Your task to perform on an android device: change timer sound Image 0: 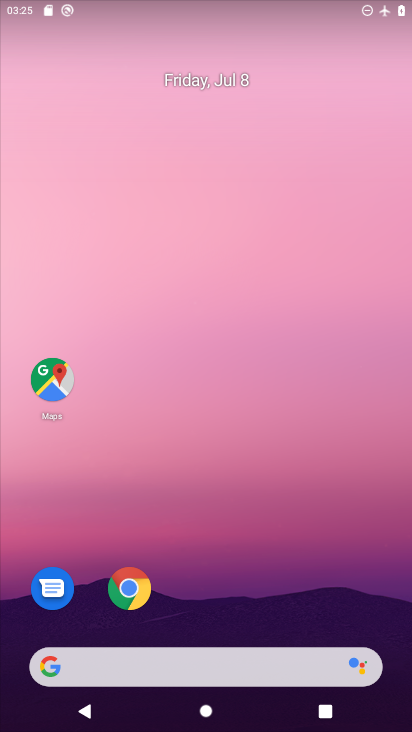
Step 0: drag from (217, 594) to (209, 75)
Your task to perform on an android device: change timer sound Image 1: 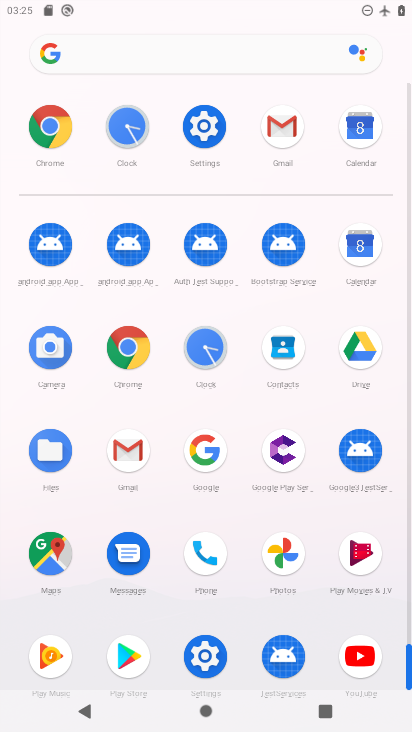
Step 1: click (200, 346)
Your task to perform on an android device: change timer sound Image 2: 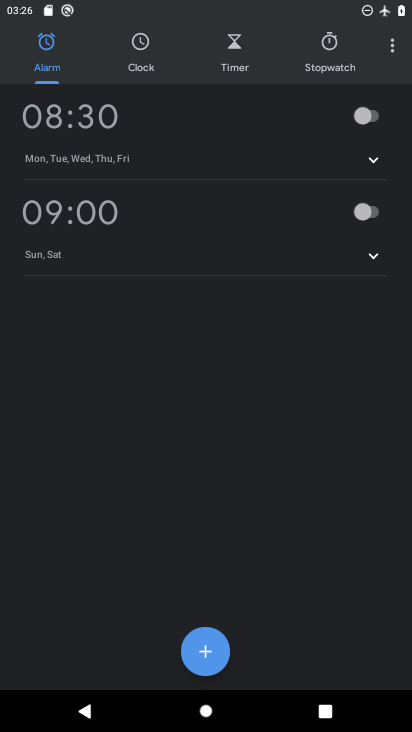
Step 2: click (227, 55)
Your task to perform on an android device: change timer sound Image 3: 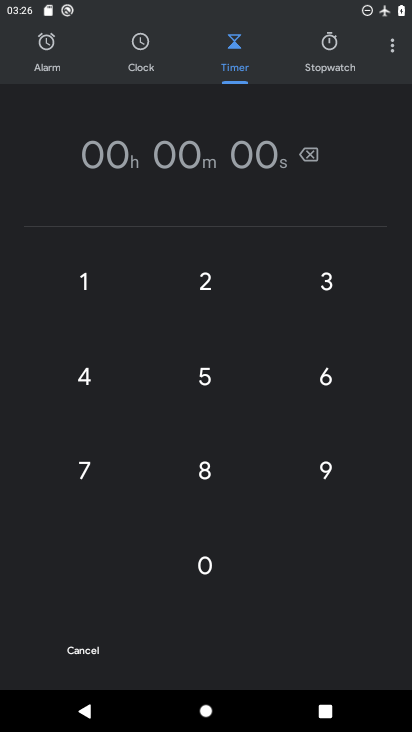
Step 3: click (201, 289)
Your task to perform on an android device: change timer sound Image 4: 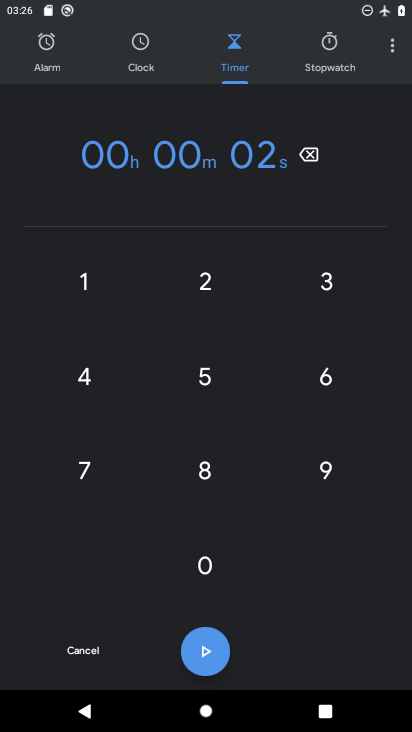
Step 4: click (201, 559)
Your task to perform on an android device: change timer sound Image 5: 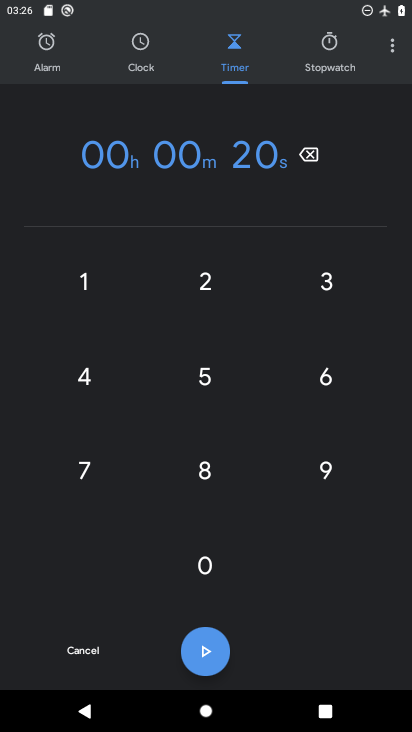
Step 5: click (203, 275)
Your task to perform on an android device: change timer sound Image 6: 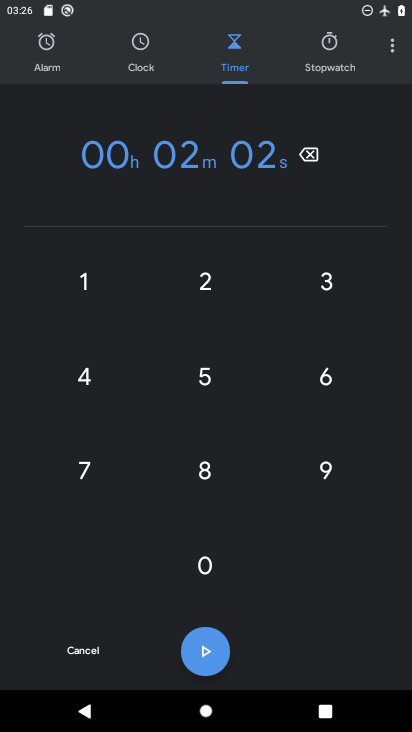
Step 6: click (203, 574)
Your task to perform on an android device: change timer sound Image 7: 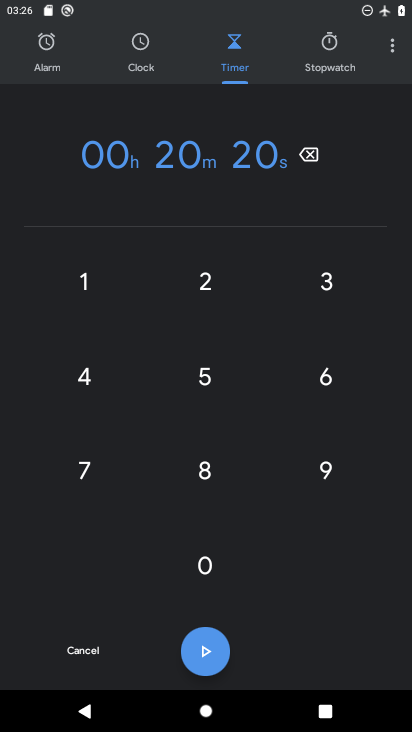
Step 7: click (206, 659)
Your task to perform on an android device: change timer sound Image 8: 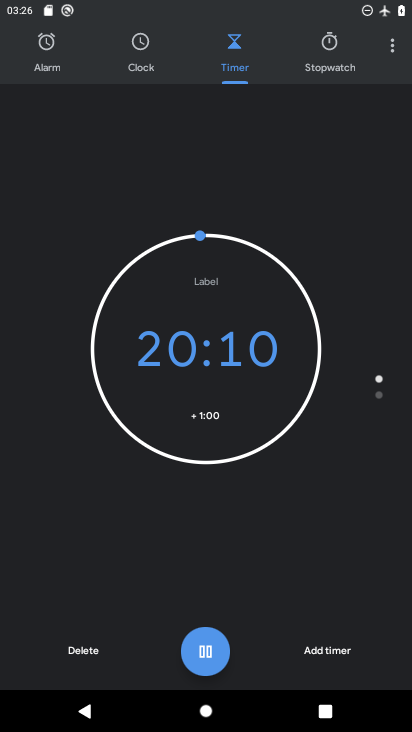
Step 8: click (328, 647)
Your task to perform on an android device: change timer sound Image 9: 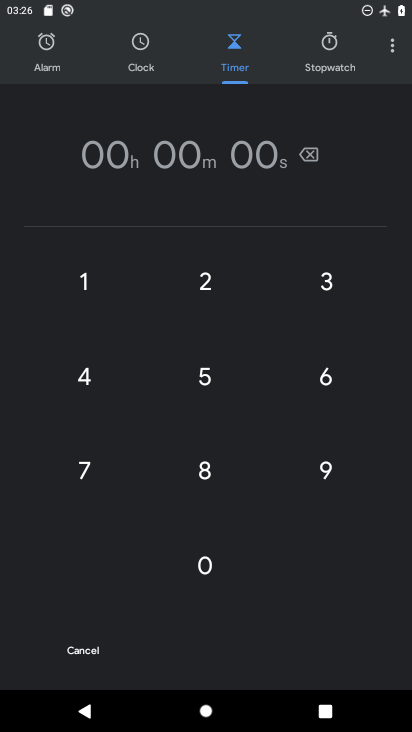
Step 9: click (318, 647)
Your task to perform on an android device: change timer sound Image 10: 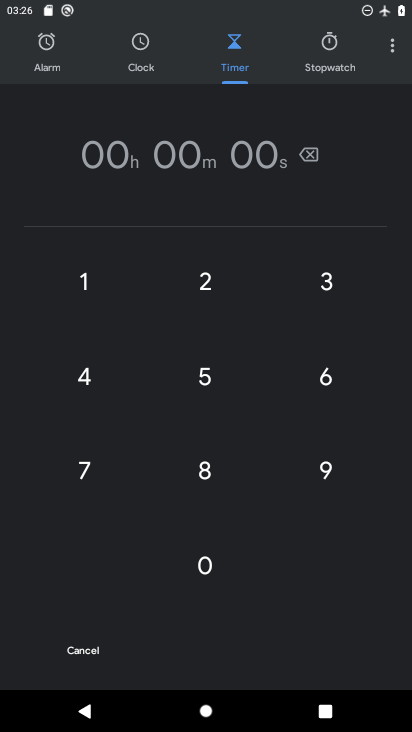
Step 10: task complete